Your task to perform on an android device: What is the capital of China? Image 0: 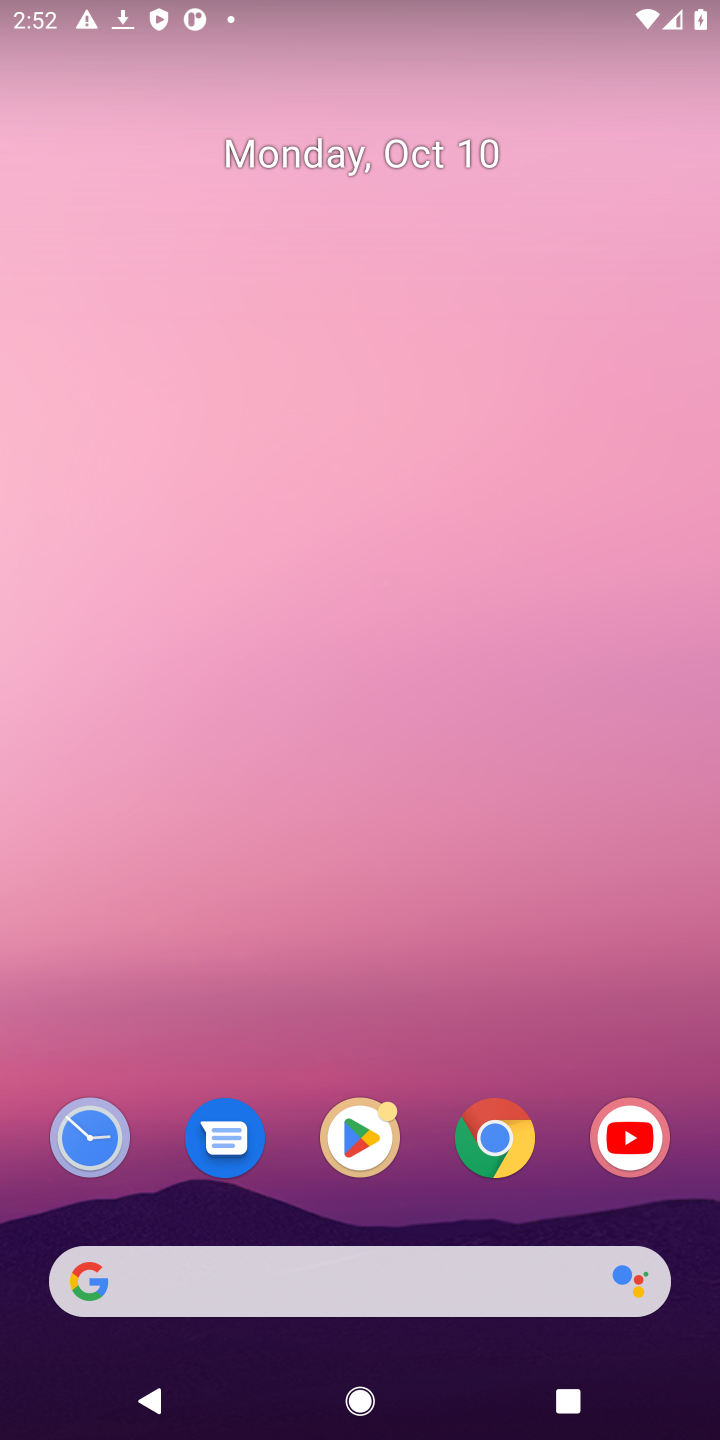
Step 0: click (501, 1135)
Your task to perform on an android device: What is the capital of China? Image 1: 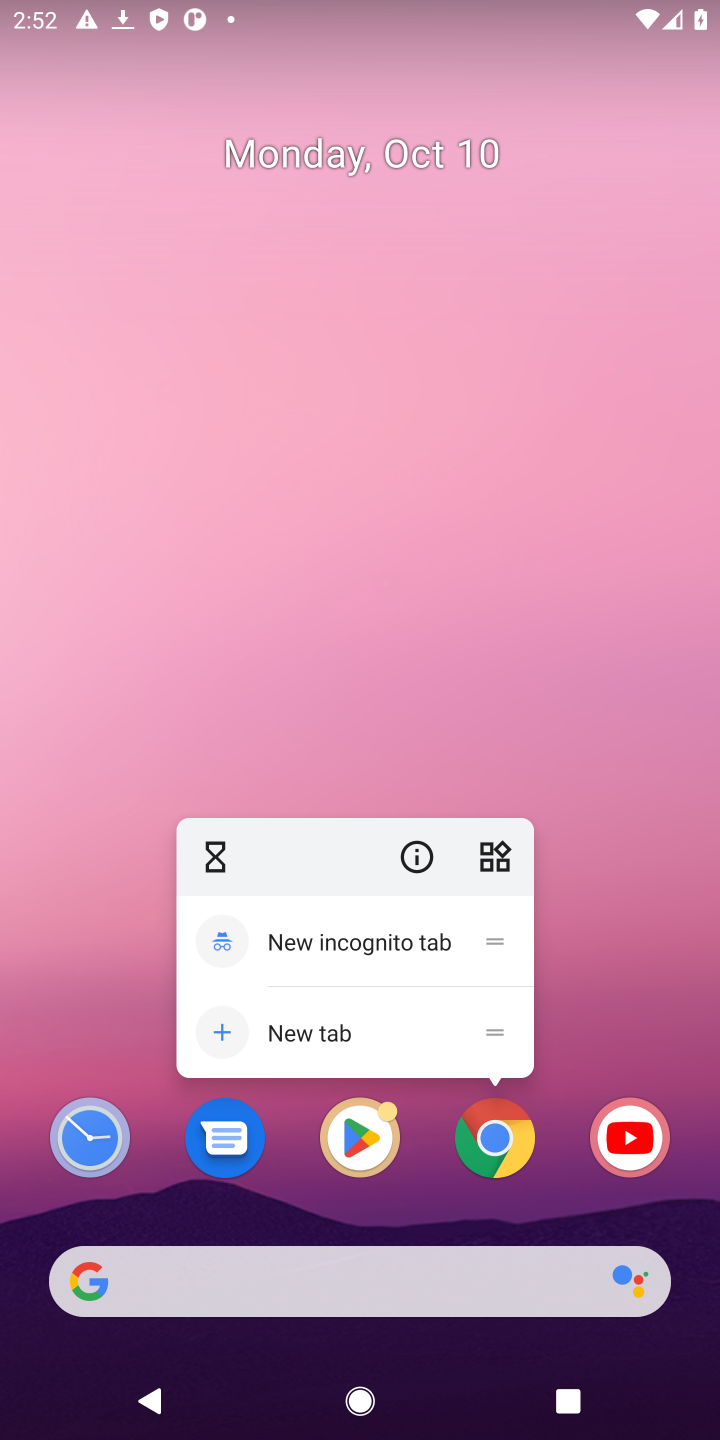
Step 1: click (346, 1032)
Your task to perform on an android device: What is the capital of China? Image 2: 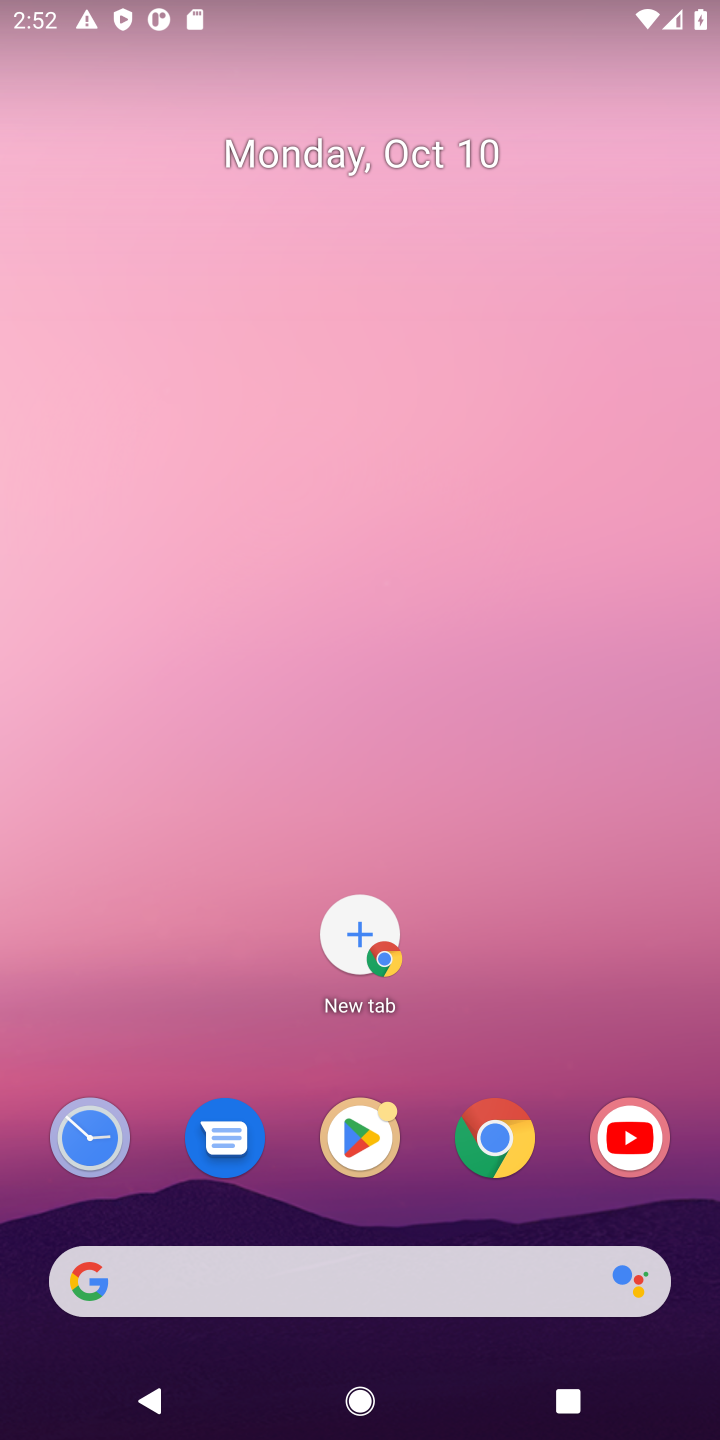
Step 2: click (363, 946)
Your task to perform on an android device: What is the capital of China? Image 3: 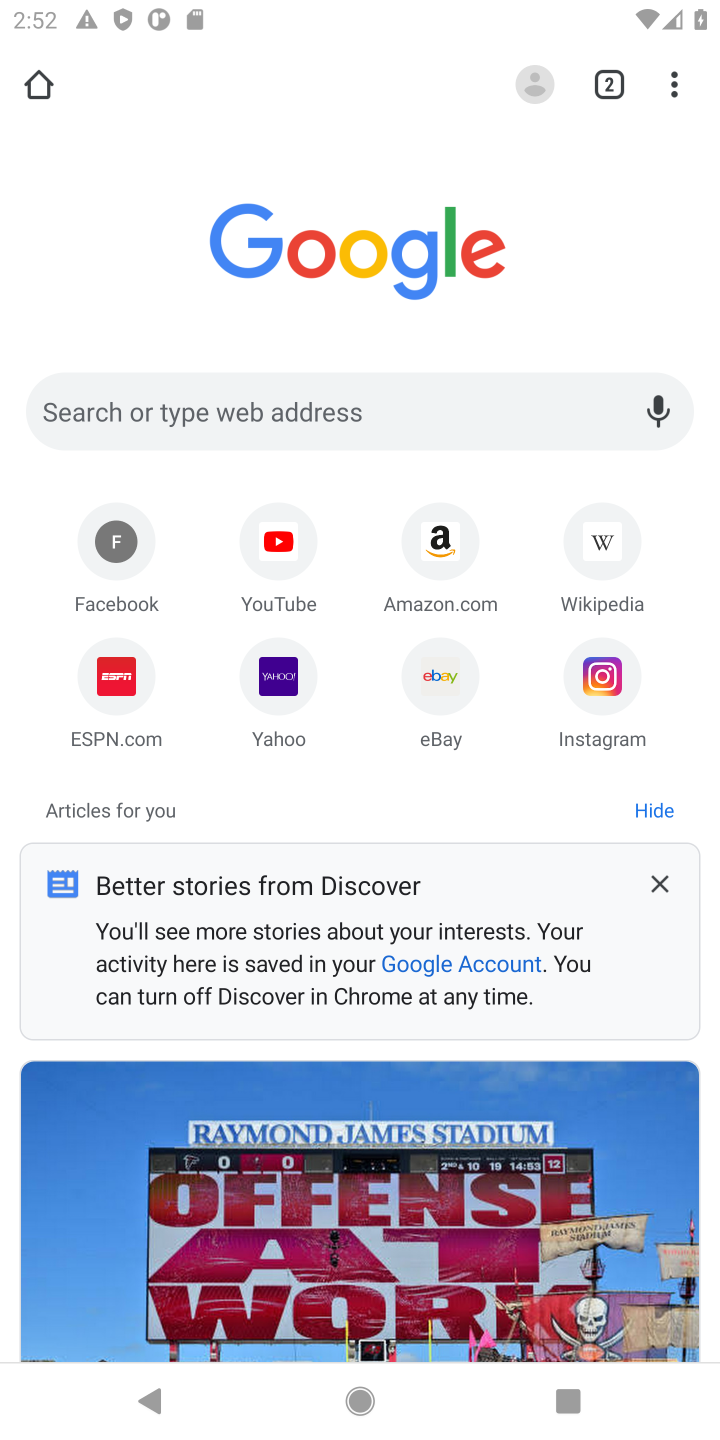
Step 3: drag from (363, 946) to (393, 393)
Your task to perform on an android device: What is the capital of China? Image 4: 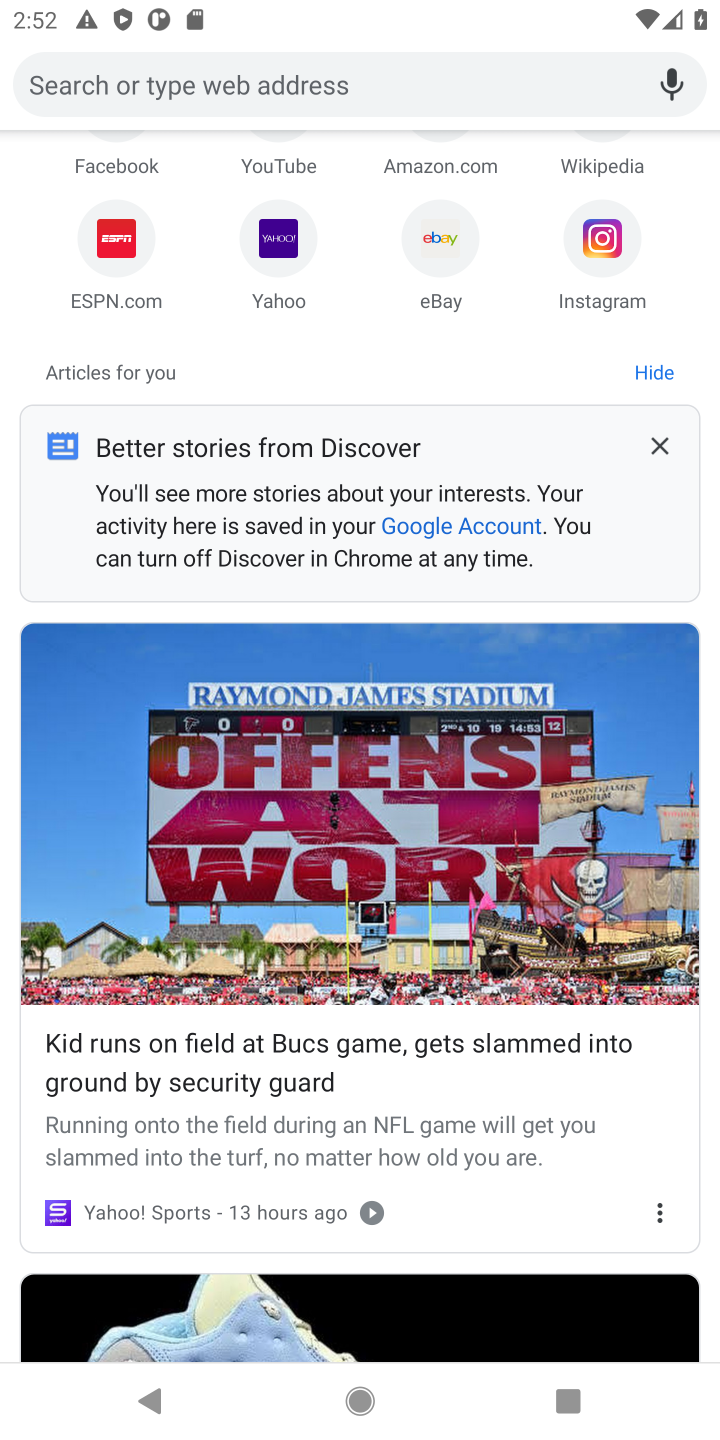
Step 4: click (302, 83)
Your task to perform on an android device: What is the capital of China? Image 5: 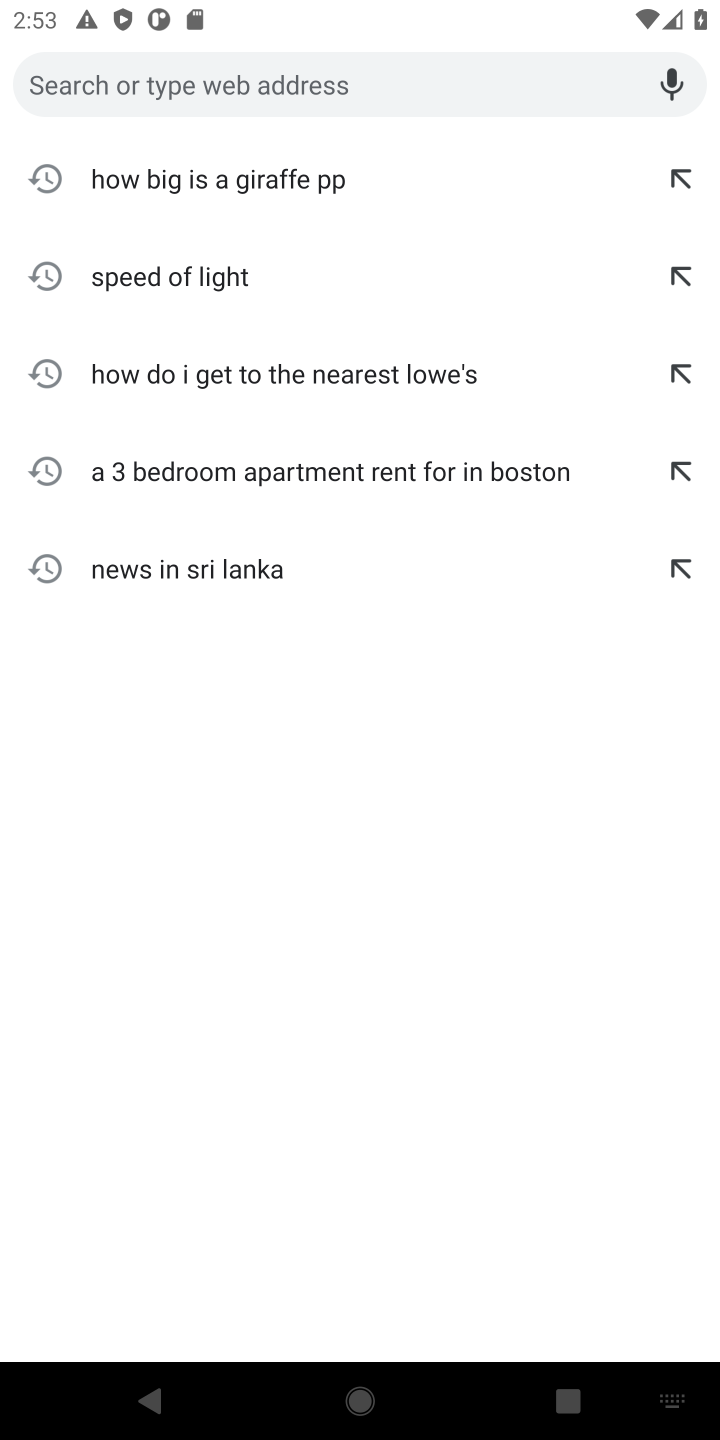
Step 5: type "capital of china"
Your task to perform on an android device: What is the capital of China? Image 6: 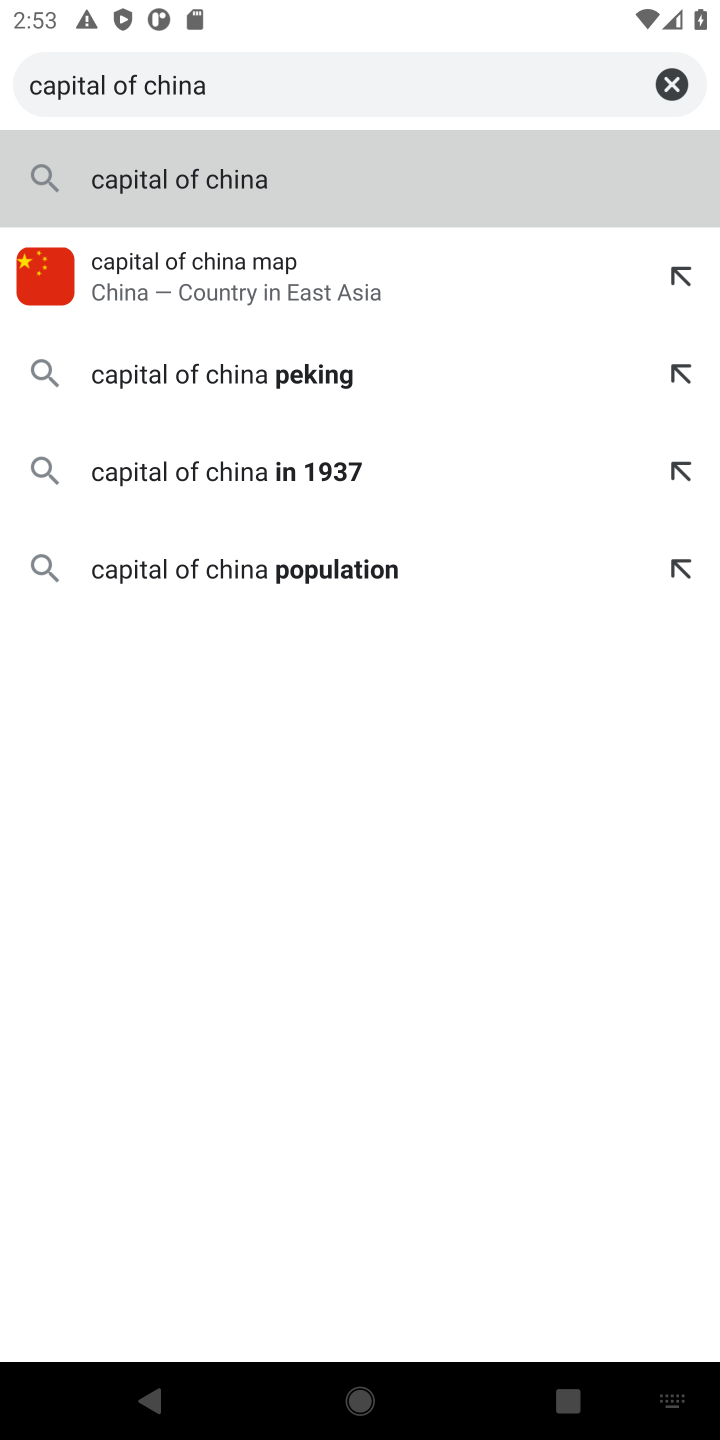
Step 6: type ""
Your task to perform on an android device: What is the capital of China? Image 7: 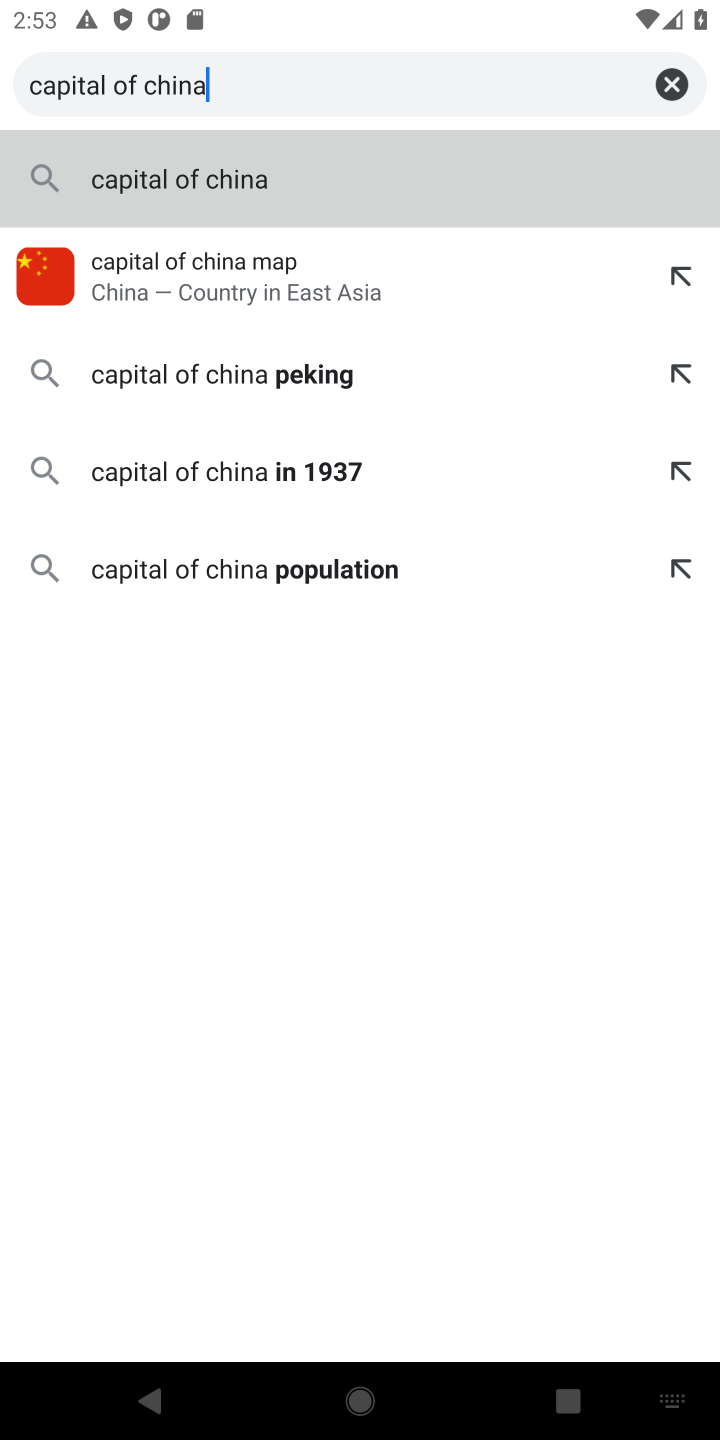
Step 7: press enter
Your task to perform on an android device: What is the capital of China? Image 8: 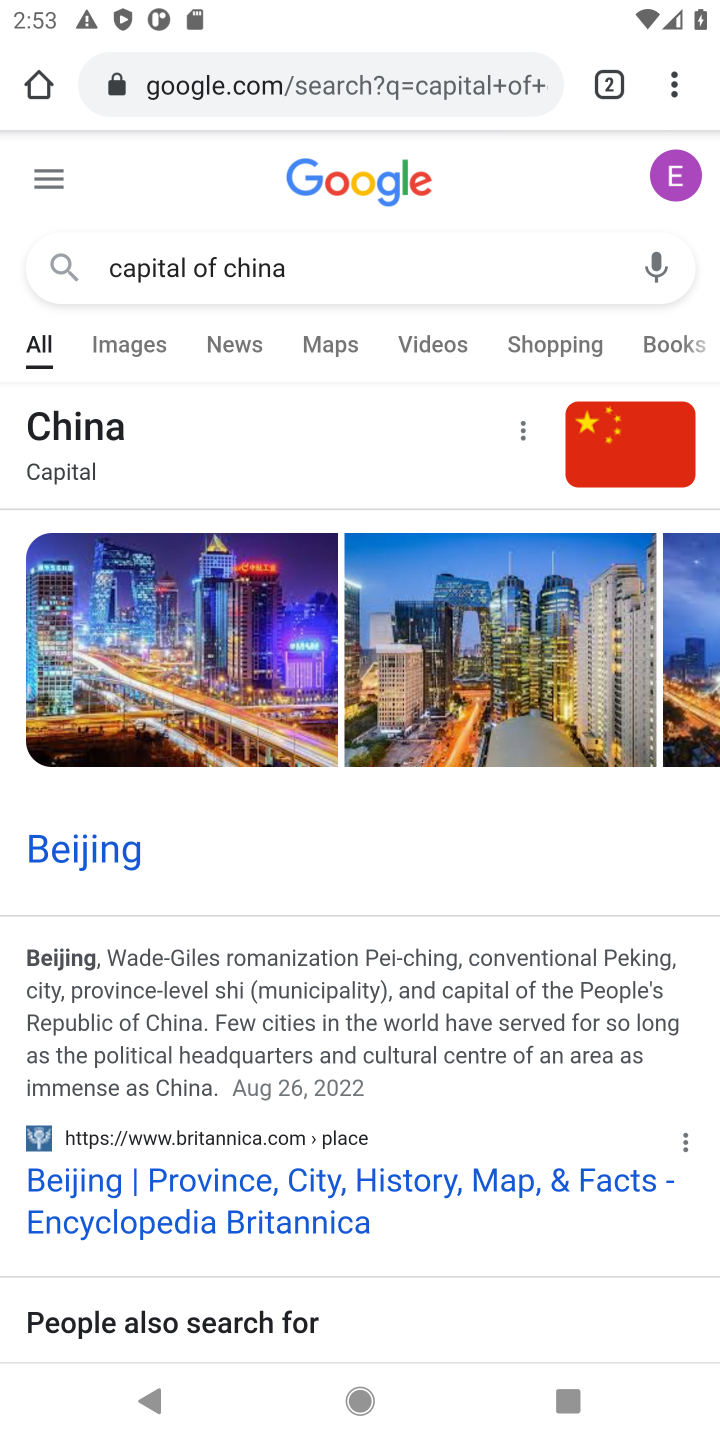
Step 8: task complete